Your task to perform on an android device: choose inbox layout in the gmail app Image 0: 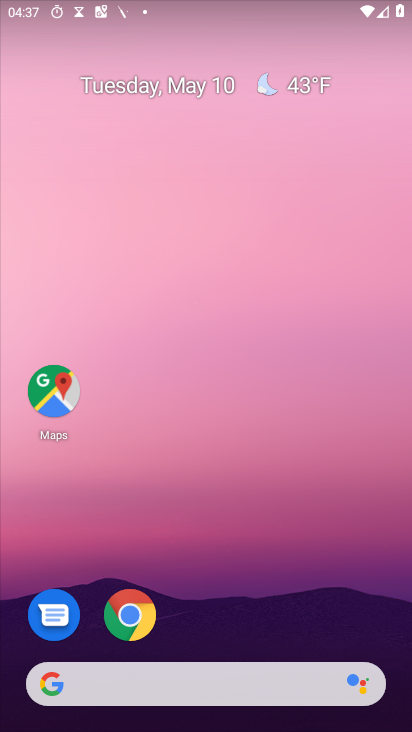
Step 0: drag from (280, 619) to (359, 38)
Your task to perform on an android device: choose inbox layout in the gmail app Image 1: 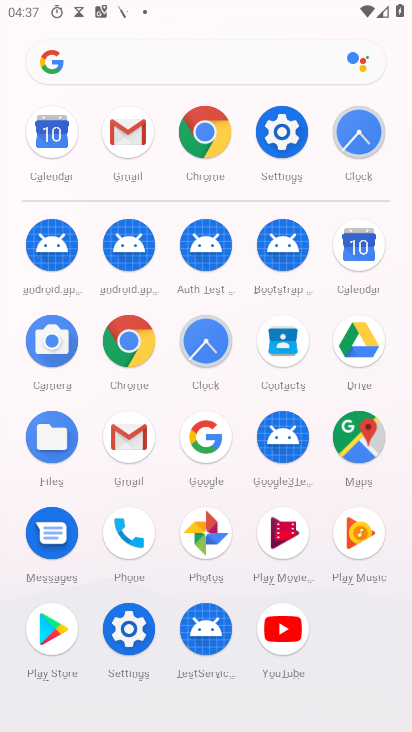
Step 1: click (109, 438)
Your task to perform on an android device: choose inbox layout in the gmail app Image 2: 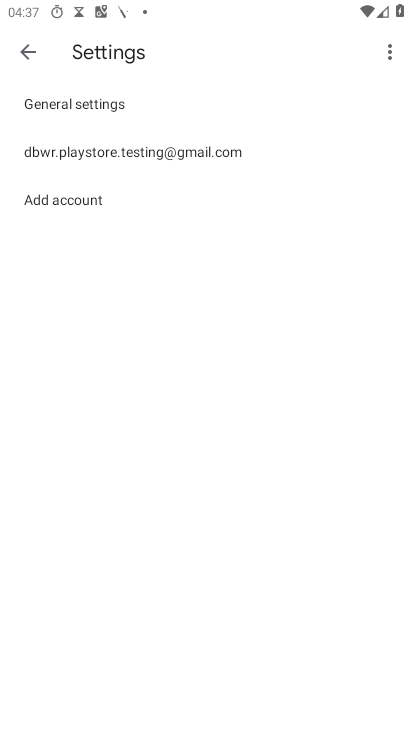
Step 2: click (204, 154)
Your task to perform on an android device: choose inbox layout in the gmail app Image 3: 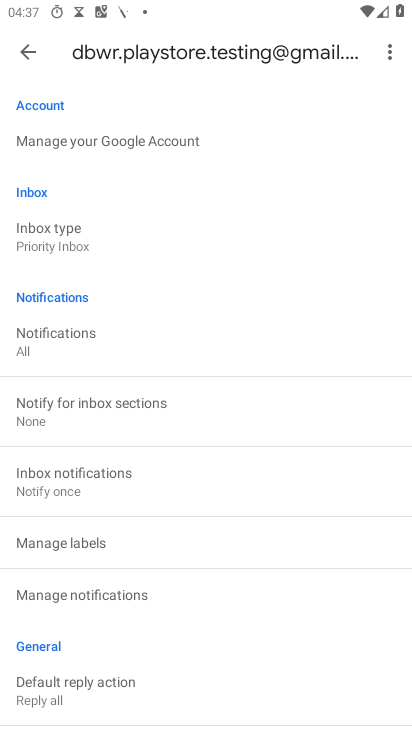
Step 3: click (63, 232)
Your task to perform on an android device: choose inbox layout in the gmail app Image 4: 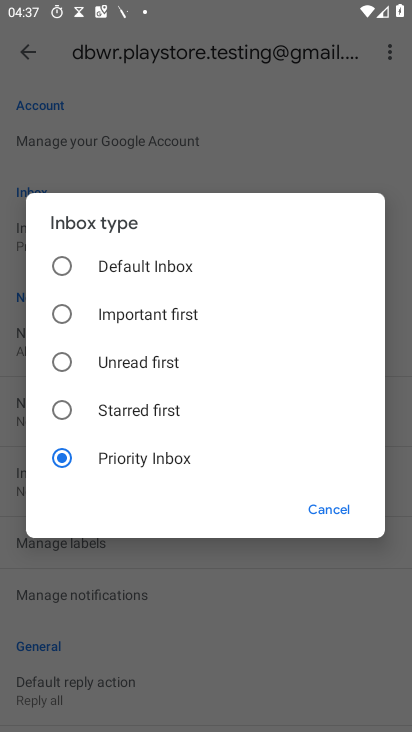
Step 4: click (62, 364)
Your task to perform on an android device: choose inbox layout in the gmail app Image 5: 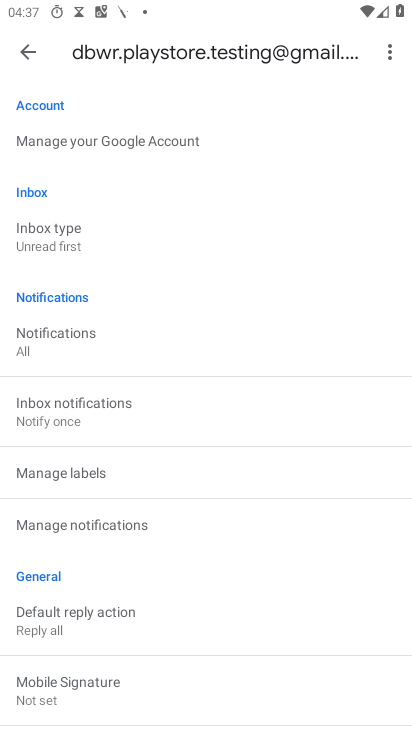
Step 5: task complete